Your task to perform on an android device: add a contact in the contacts app Image 0: 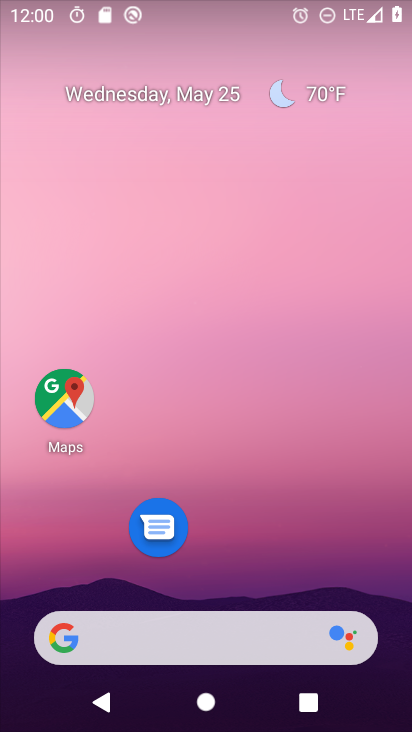
Step 0: drag from (238, 543) to (258, 54)
Your task to perform on an android device: add a contact in the contacts app Image 1: 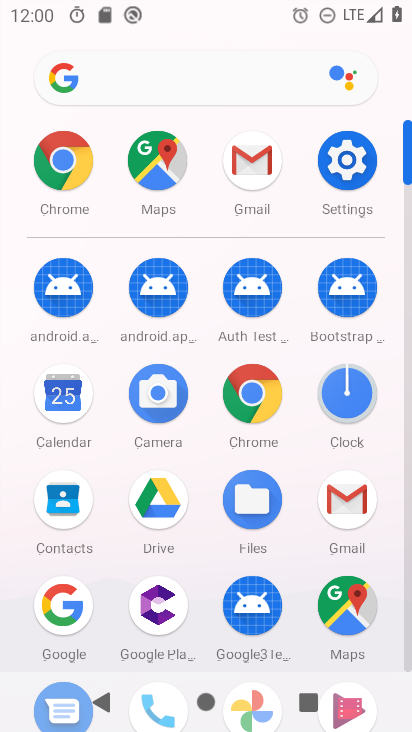
Step 1: click (63, 497)
Your task to perform on an android device: add a contact in the contacts app Image 2: 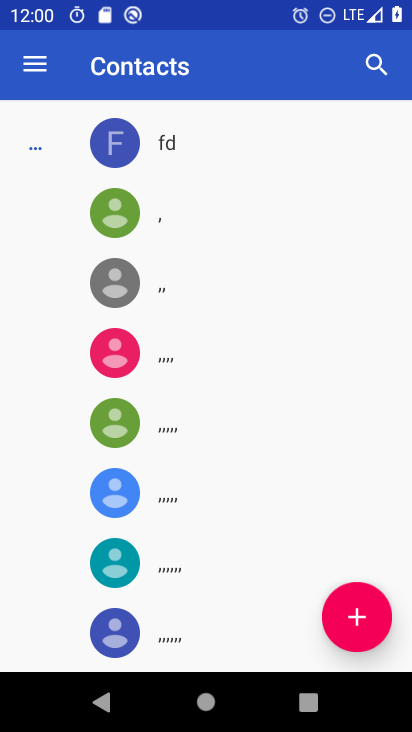
Step 2: click (365, 618)
Your task to perform on an android device: add a contact in the contacts app Image 3: 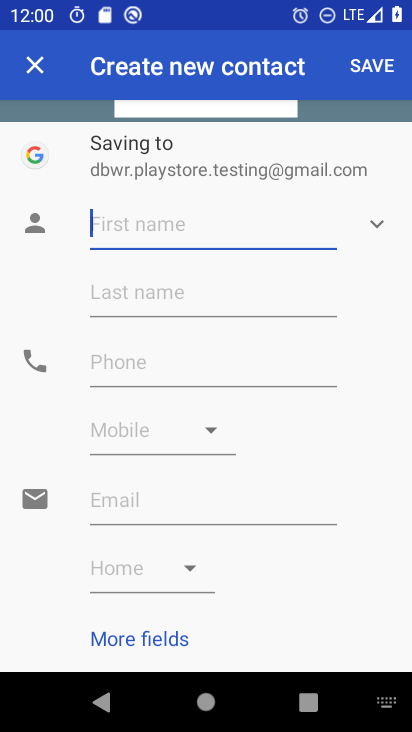
Step 3: type "ytgy"
Your task to perform on an android device: add a contact in the contacts app Image 4: 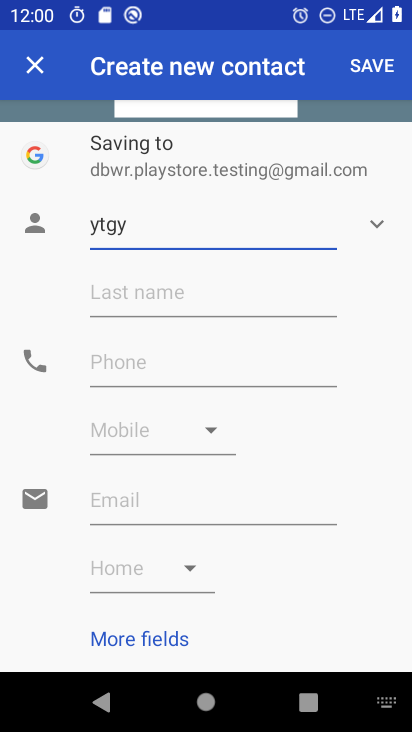
Step 4: click (370, 71)
Your task to perform on an android device: add a contact in the contacts app Image 5: 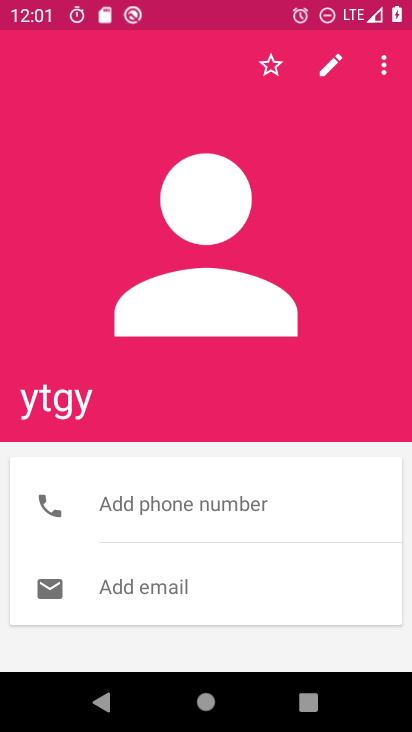
Step 5: task complete